Your task to perform on an android device: Go to Yahoo.com Image 0: 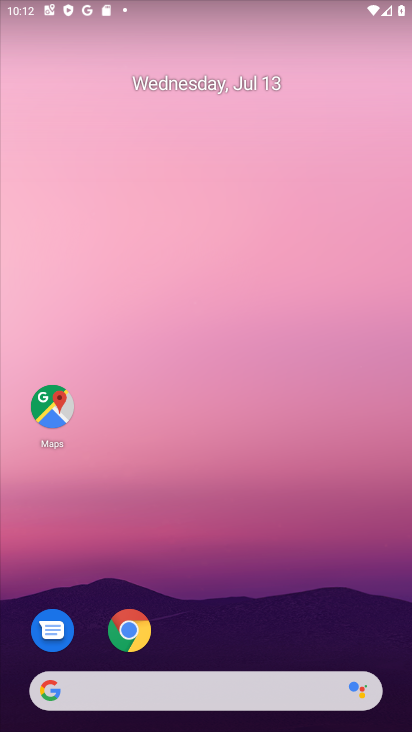
Step 0: drag from (303, 632) to (243, 72)
Your task to perform on an android device: Go to Yahoo.com Image 1: 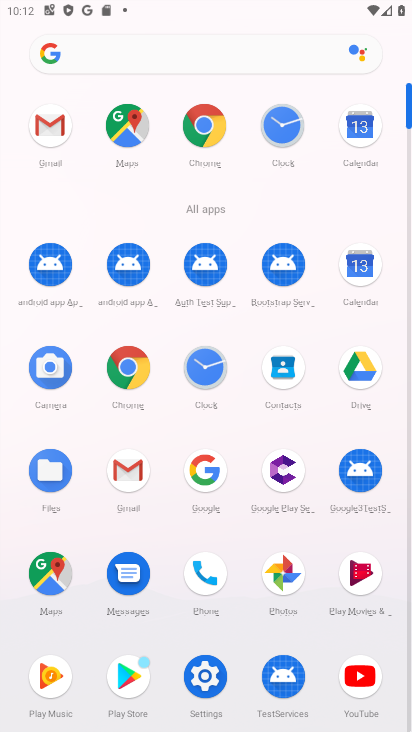
Step 1: click (211, 138)
Your task to perform on an android device: Go to Yahoo.com Image 2: 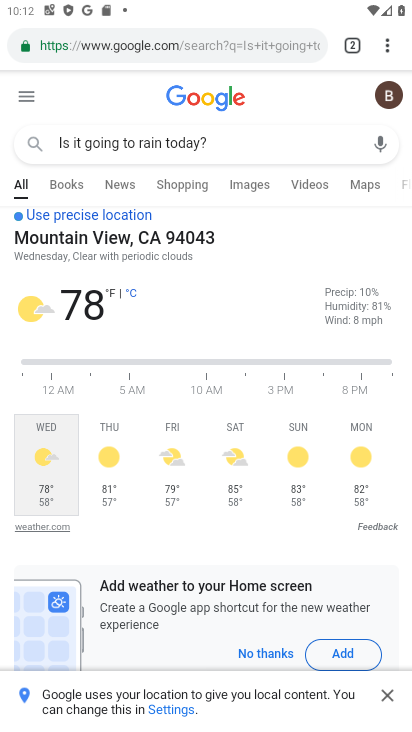
Step 2: click (356, 44)
Your task to perform on an android device: Go to Yahoo.com Image 3: 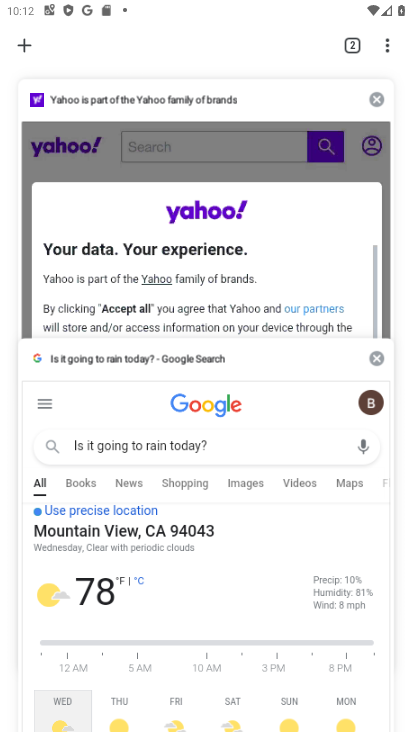
Step 3: click (281, 143)
Your task to perform on an android device: Go to Yahoo.com Image 4: 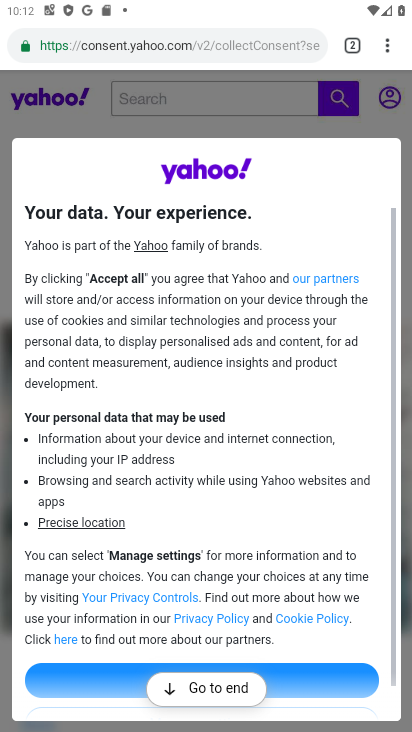
Step 4: task complete